Your task to perform on an android device: Show me the alarms in the clock app Image 0: 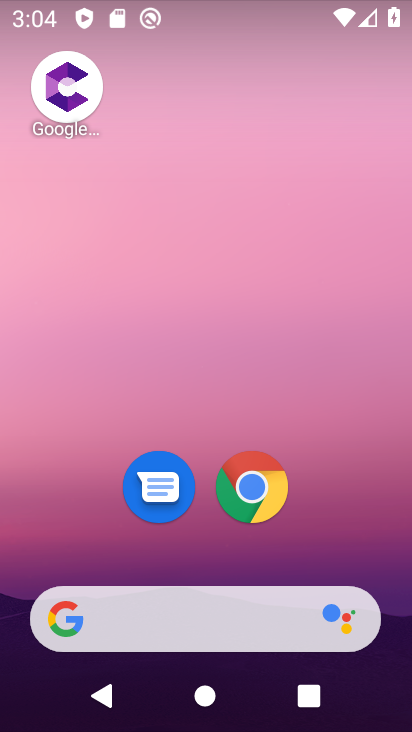
Step 0: drag from (200, 563) to (208, 71)
Your task to perform on an android device: Show me the alarms in the clock app Image 1: 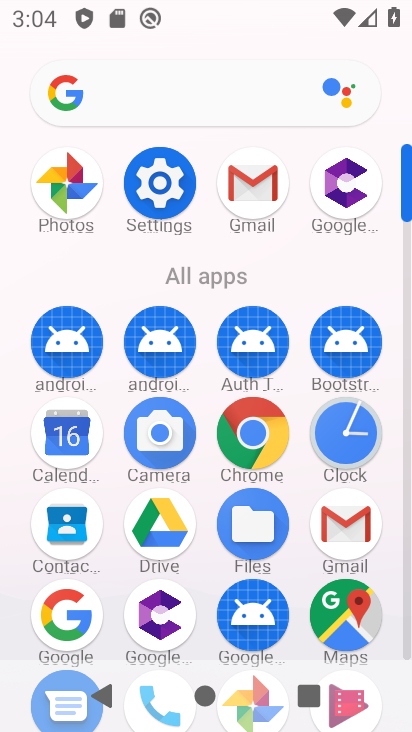
Step 1: click (348, 434)
Your task to perform on an android device: Show me the alarms in the clock app Image 2: 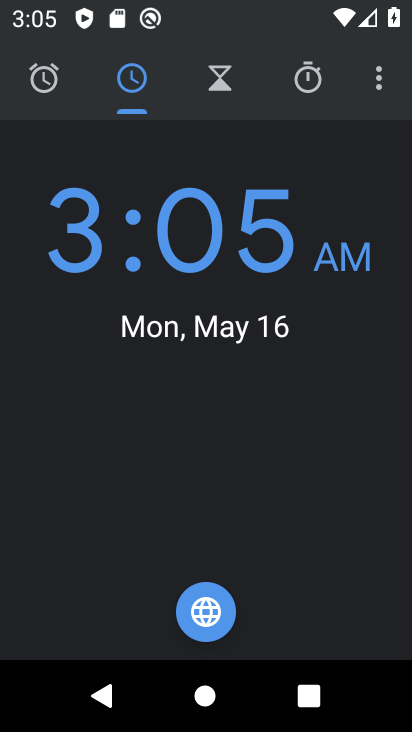
Step 2: click (380, 75)
Your task to perform on an android device: Show me the alarms in the clock app Image 3: 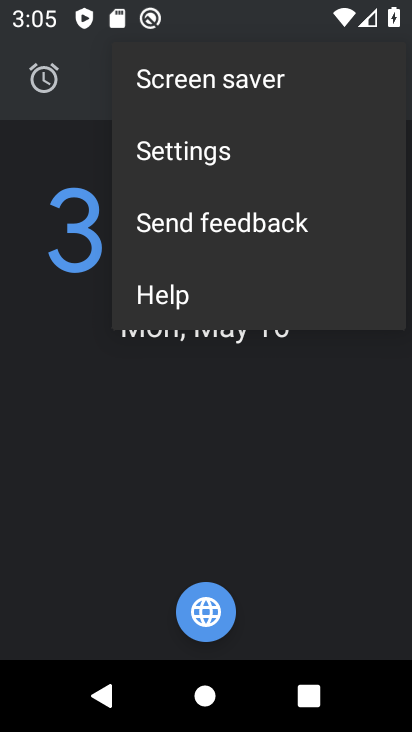
Step 3: click (40, 87)
Your task to perform on an android device: Show me the alarms in the clock app Image 4: 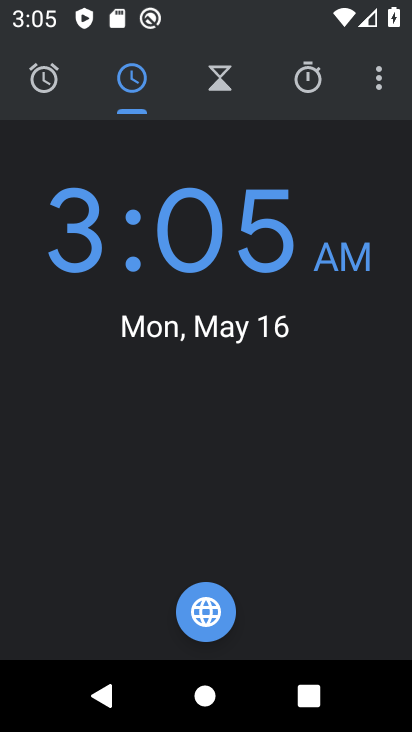
Step 4: click (43, 84)
Your task to perform on an android device: Show me the alarms in the clock app Image 5: 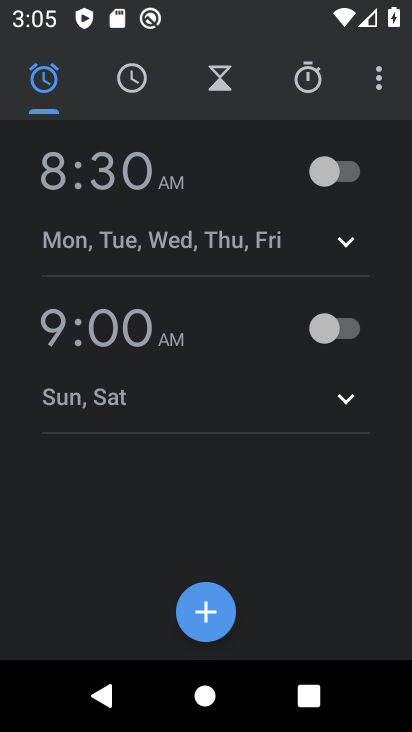
Step 5: task complete